Your task to perform on an android device: Add "logitech g pro" to the cart on bestbuy Image 0: 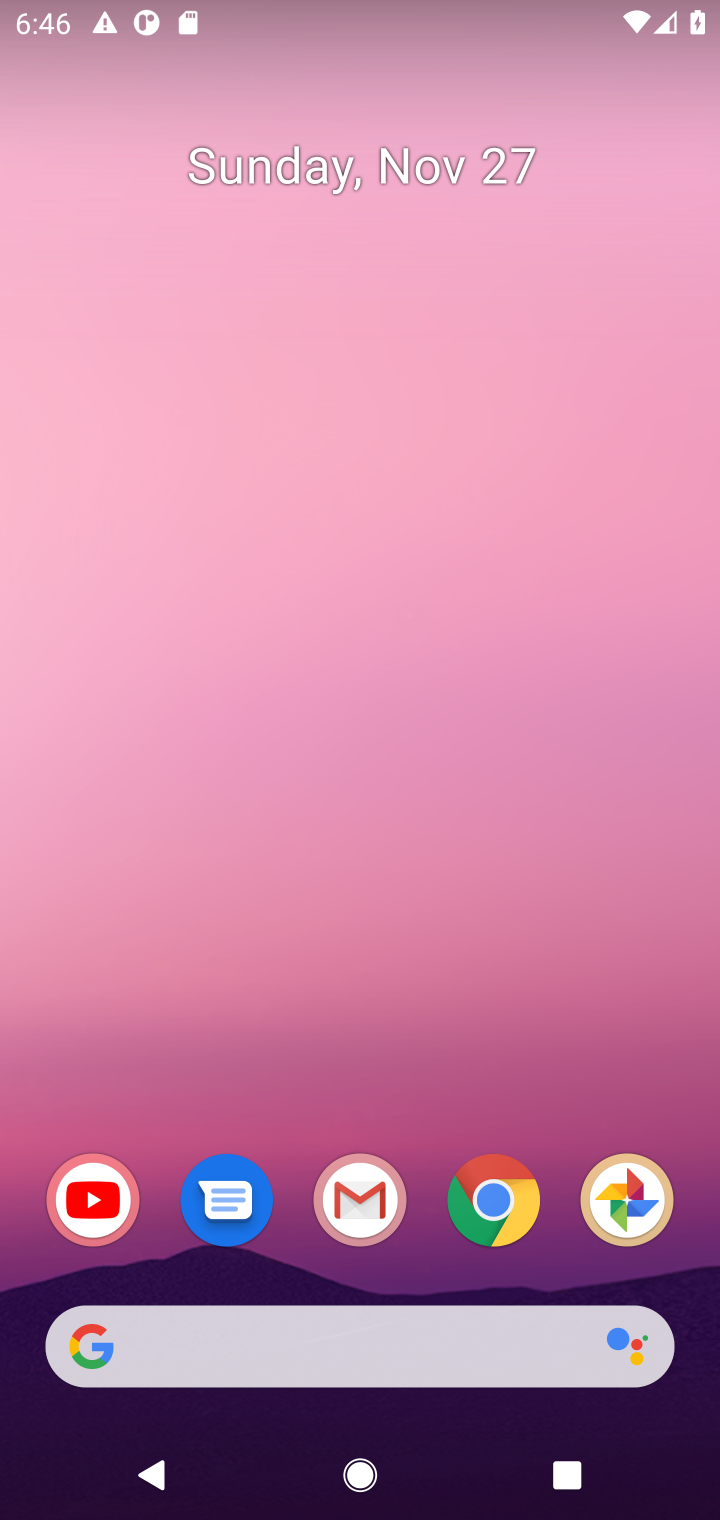
Step 0: click (512, 1206)
Your task to perform on an android device: Add "logitech g pro" to the cart on bestbuy Image 1: 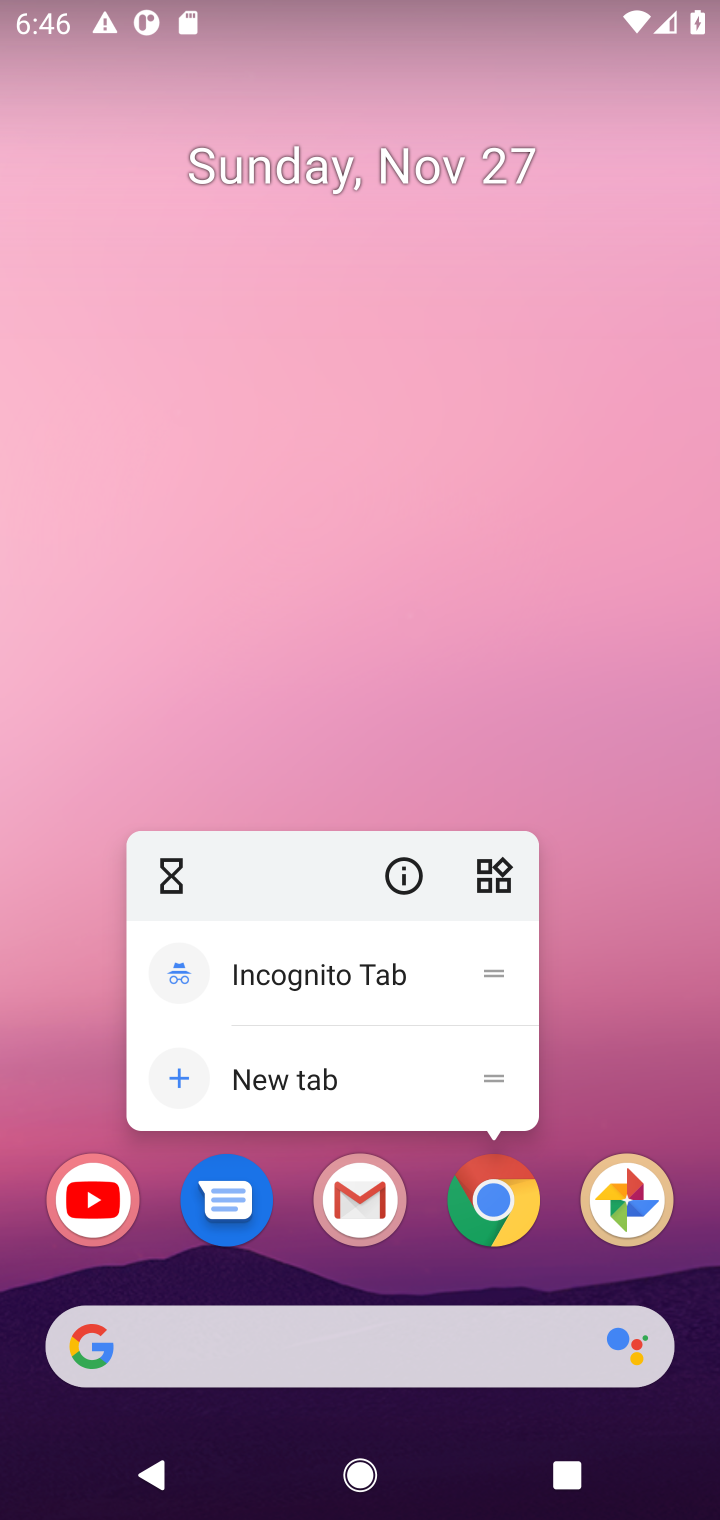
Step 1: click (510, 1204)
Your task to perform on an android device: Add "logitech g pro" to the cart on bestbuy Image 2: 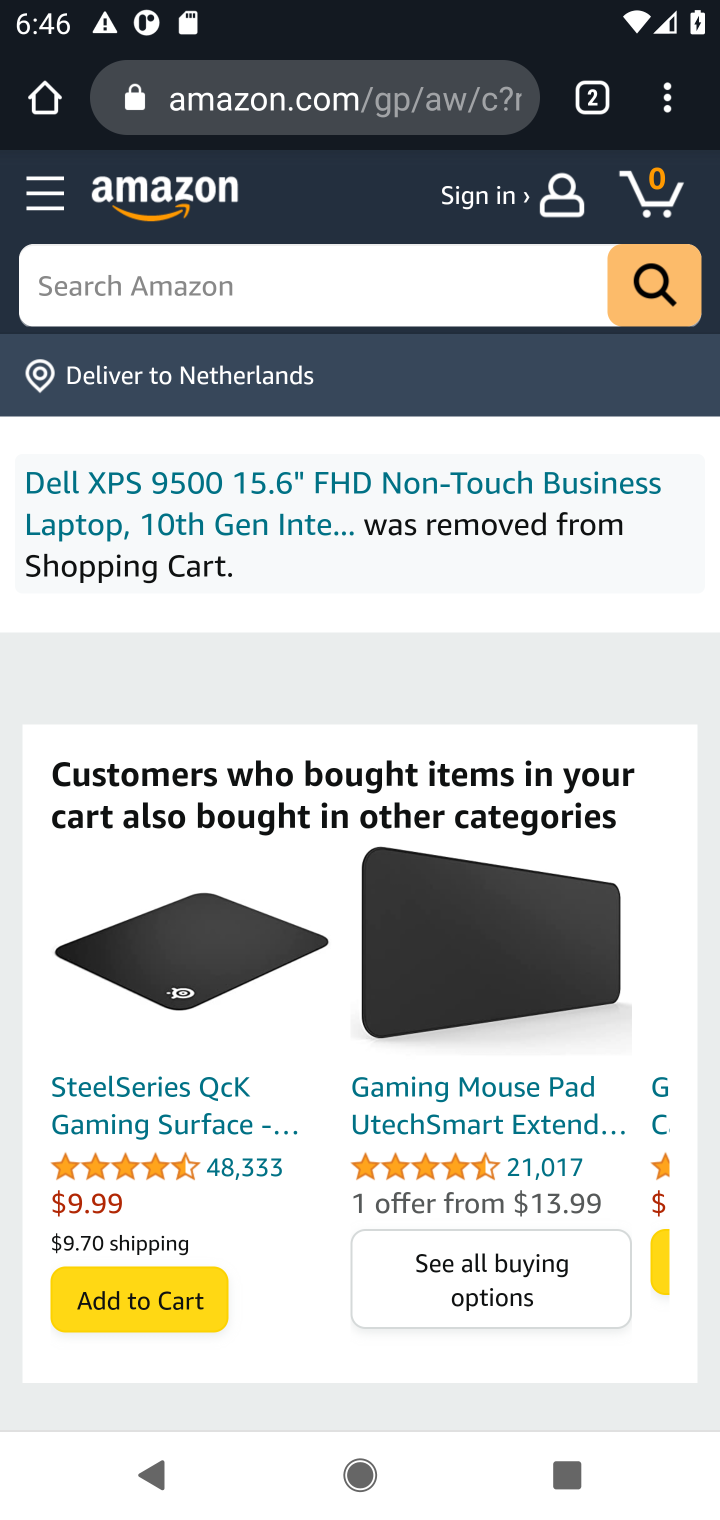
Step 2: click (292, 109)
Your task to perform on an android device: Add "logitech g pro" to the cart on bestbuy Image 3: 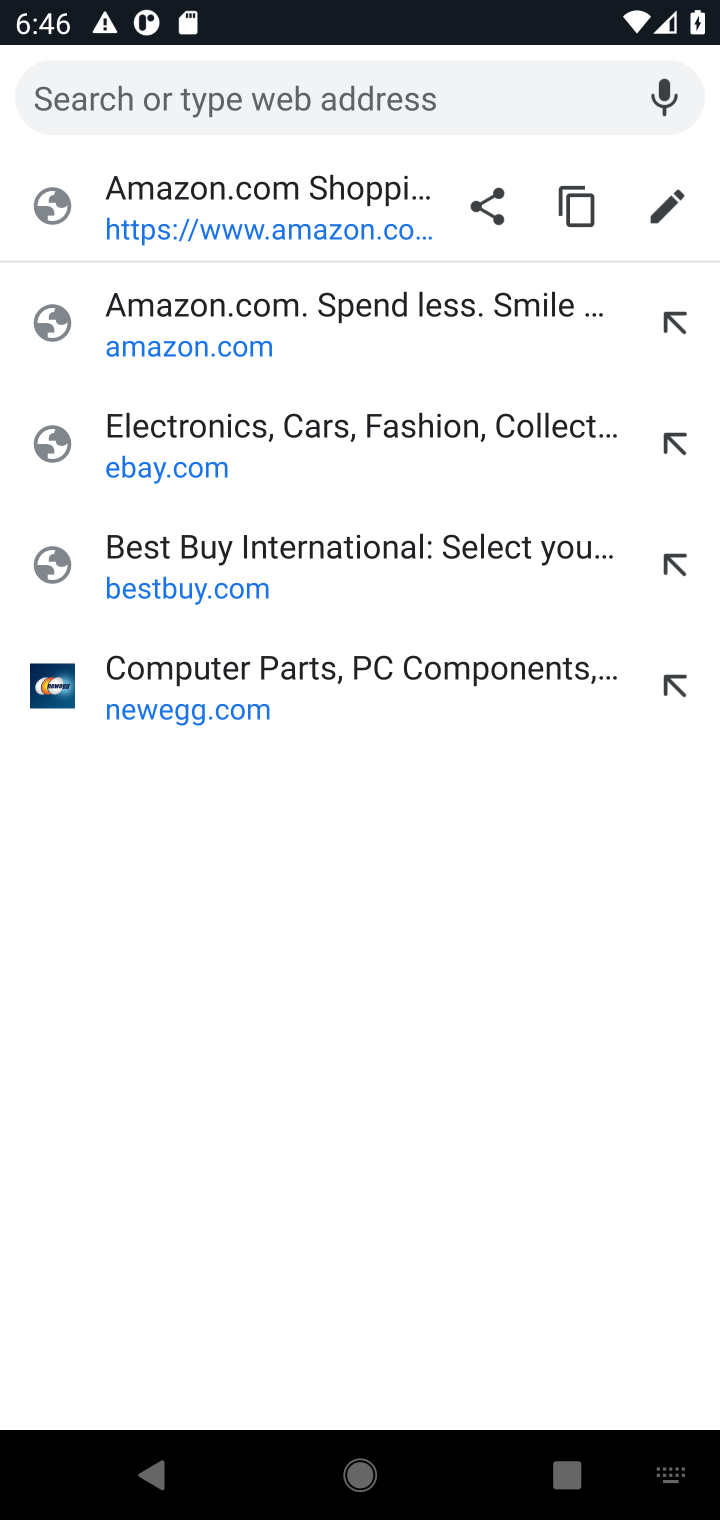
Step 3: type "bestbuy.com"
Your task to perform on an android device: Add "logitech g pro" to the cart on bestbuy Image 4: 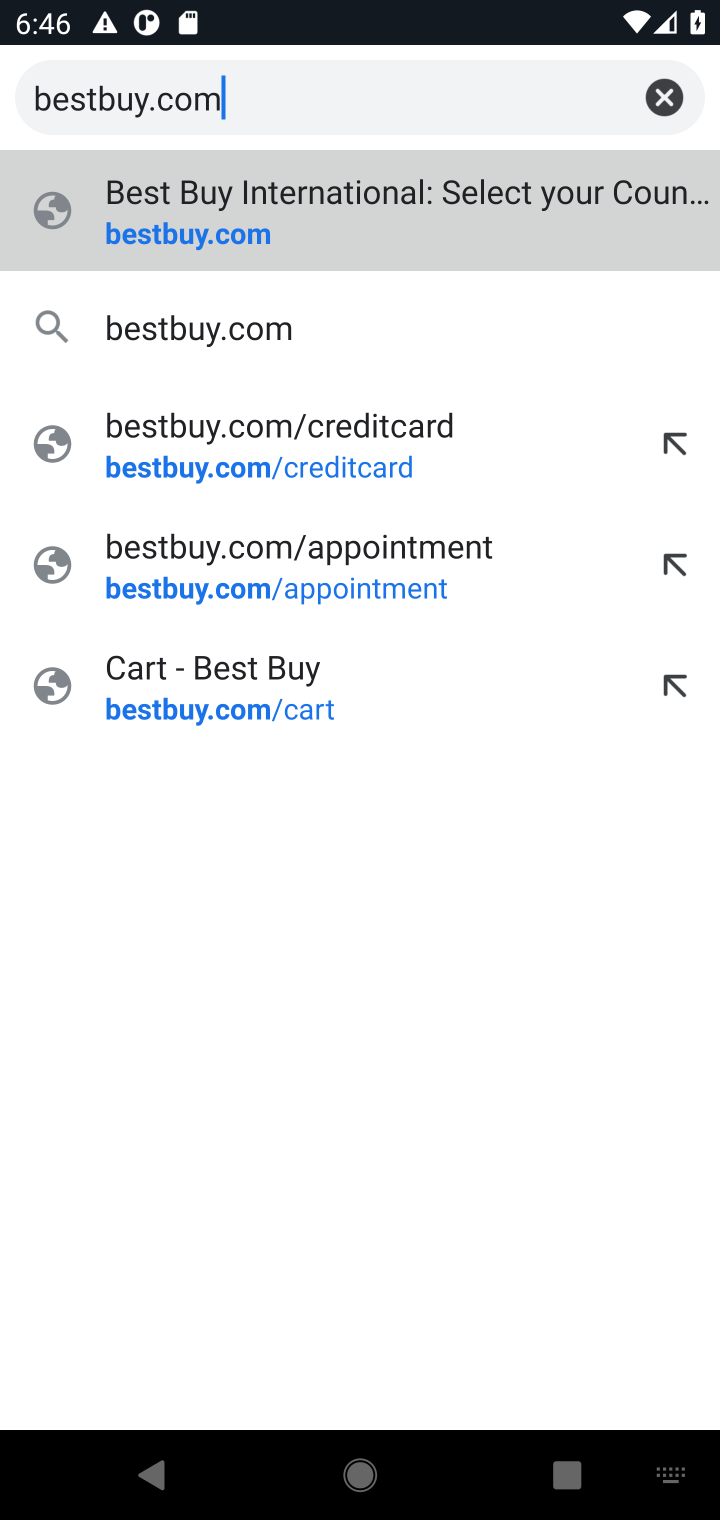
Step 4: click (148, 241)
Your task to perform on an android device: Add "logitech g pro" to the cart on bestbuy Image 5: 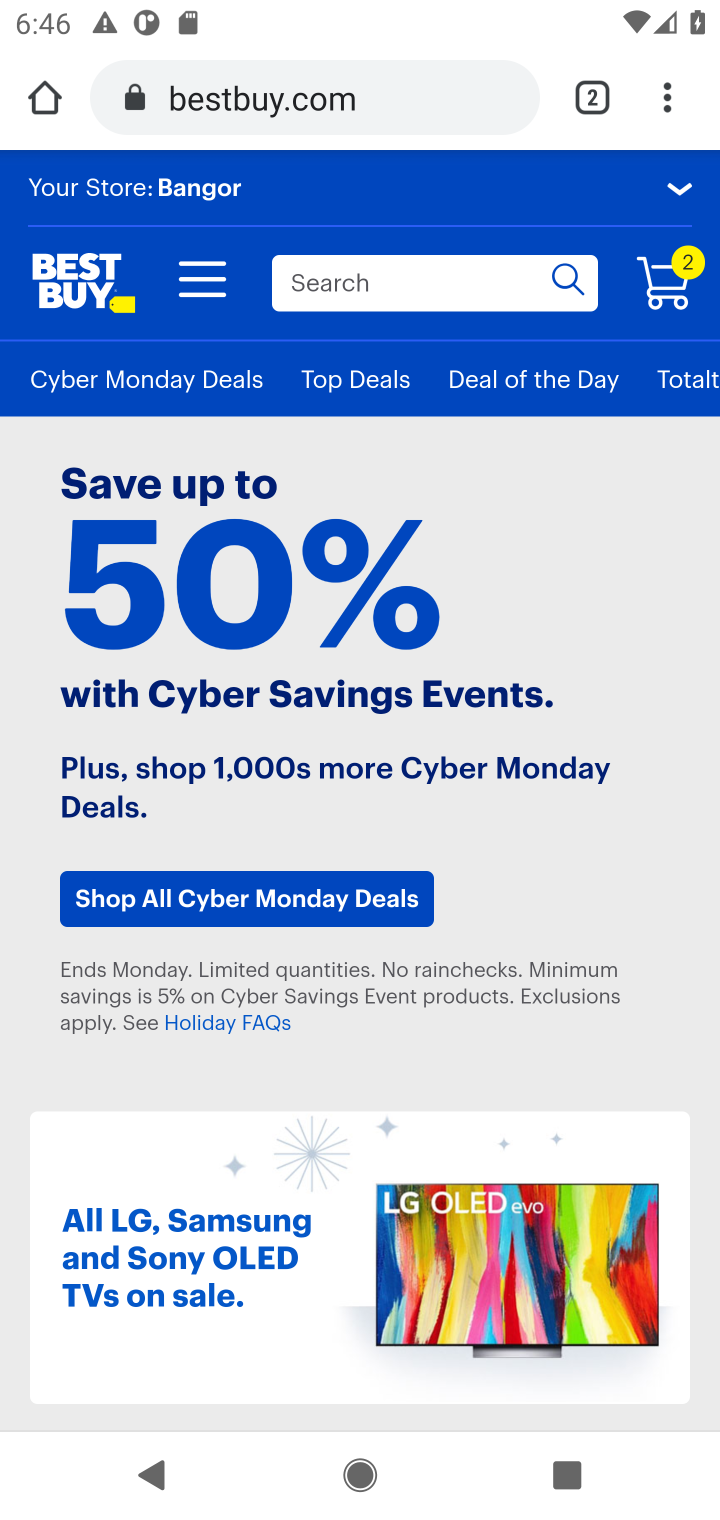
Step 5: click (334, 298)
Your task to perform on an android device: Add "logitech g pro" to the cart on bestbuy Image 6: 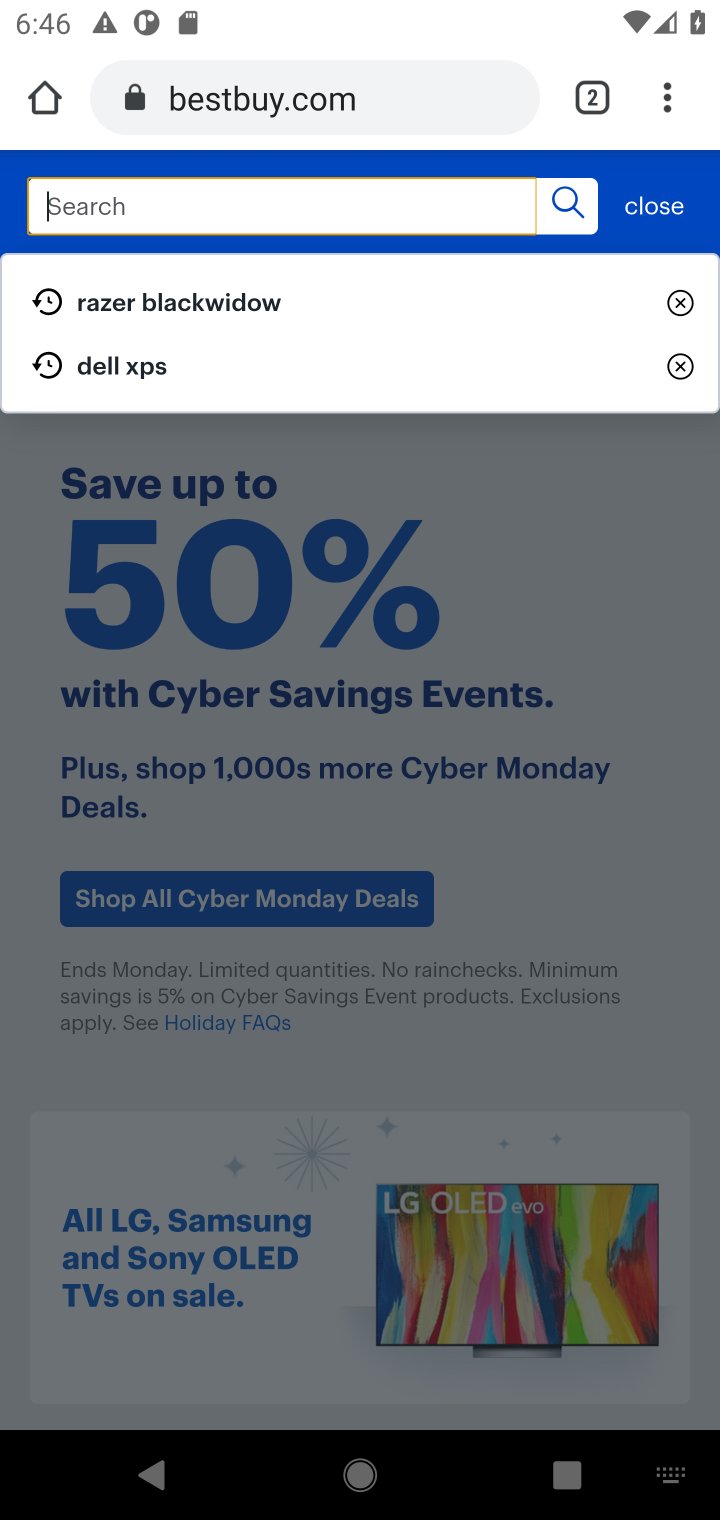
Step 6: type "logitech g pro"
Your task to perform on an android device: Add "logitech g pro" to the cart on bestbuy Image 7: 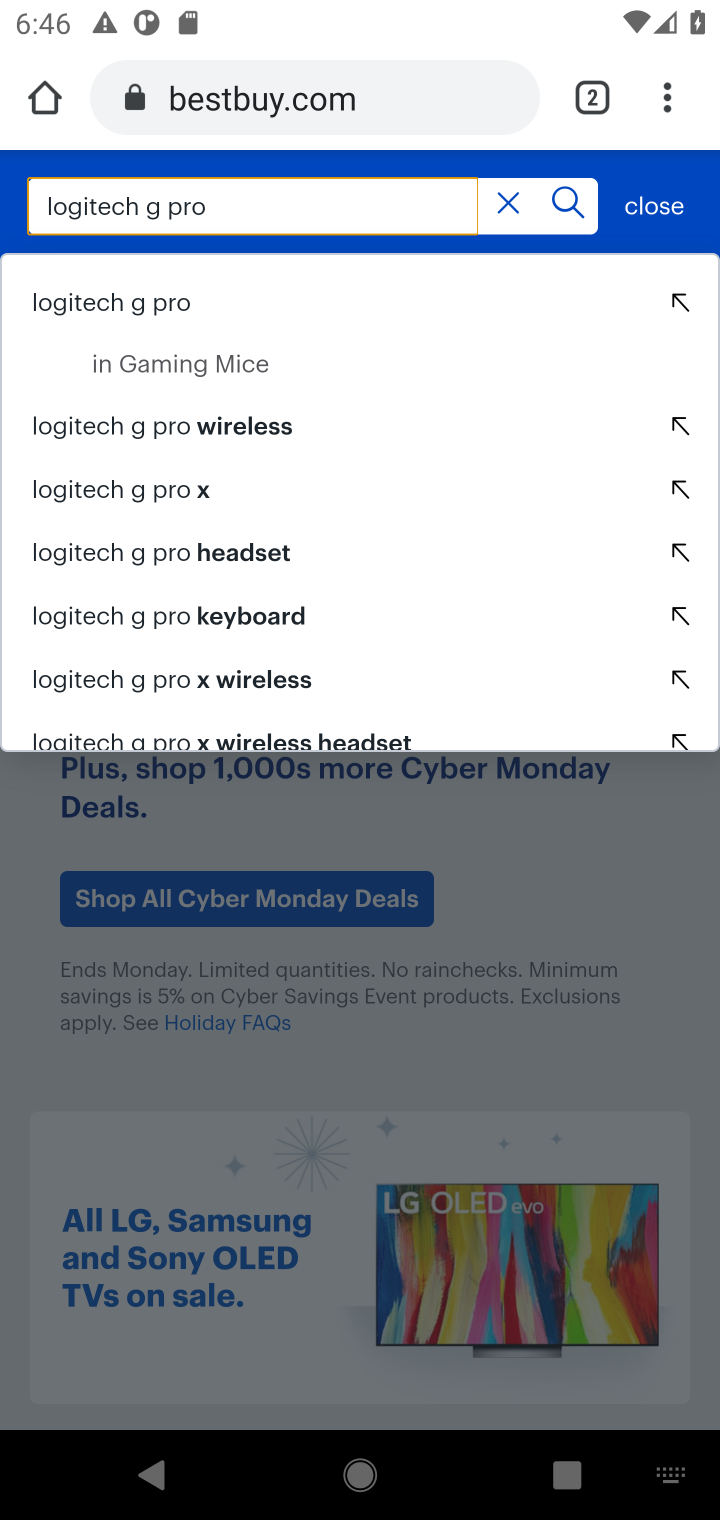
Step 7: click (123, 319)
Your task to perform on an android device: Add "logitech g pro" to the cart on bestbuy Image 8: 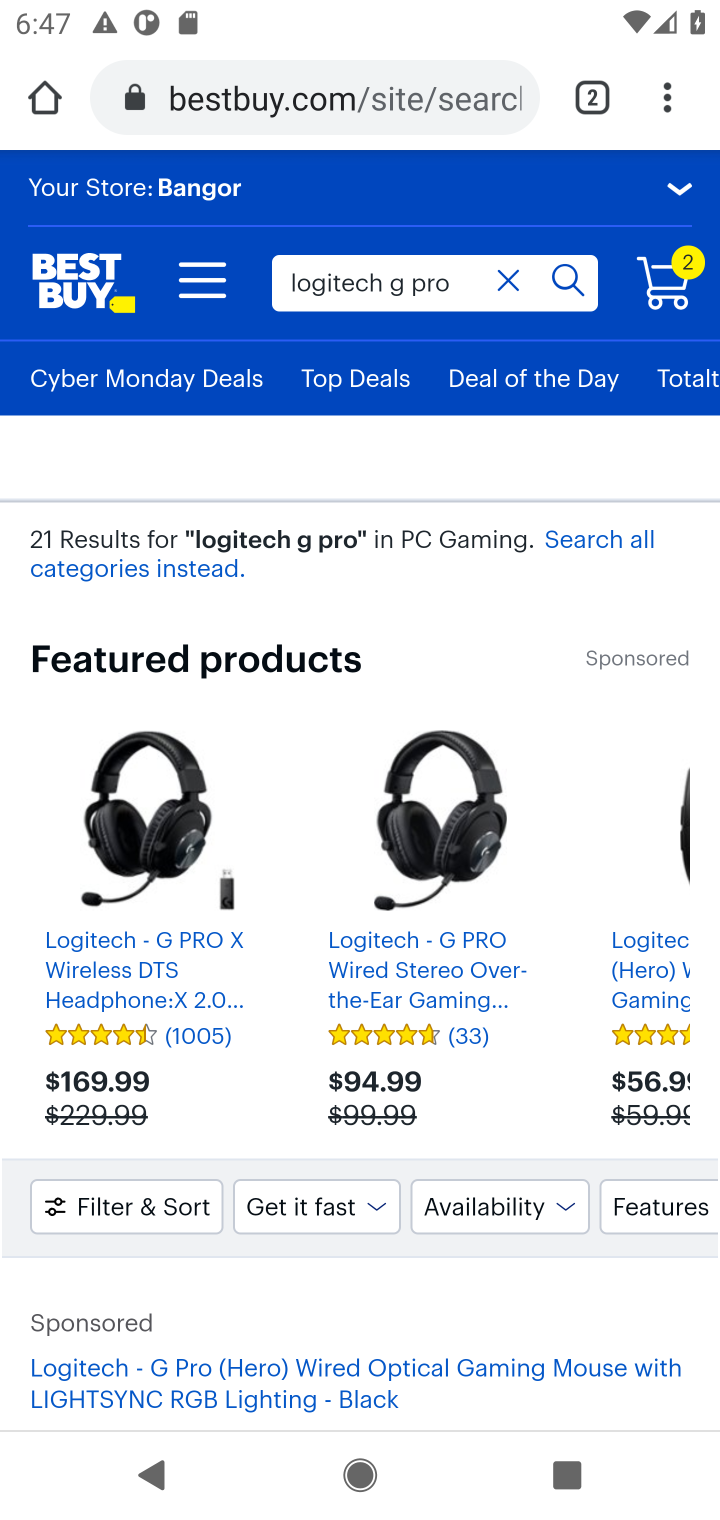
Step 8: drag from (273, 1003) to (208, 326)
Your task to perform on an android device: Add "logitech g pro" to the cart on bestbuy Image 9: 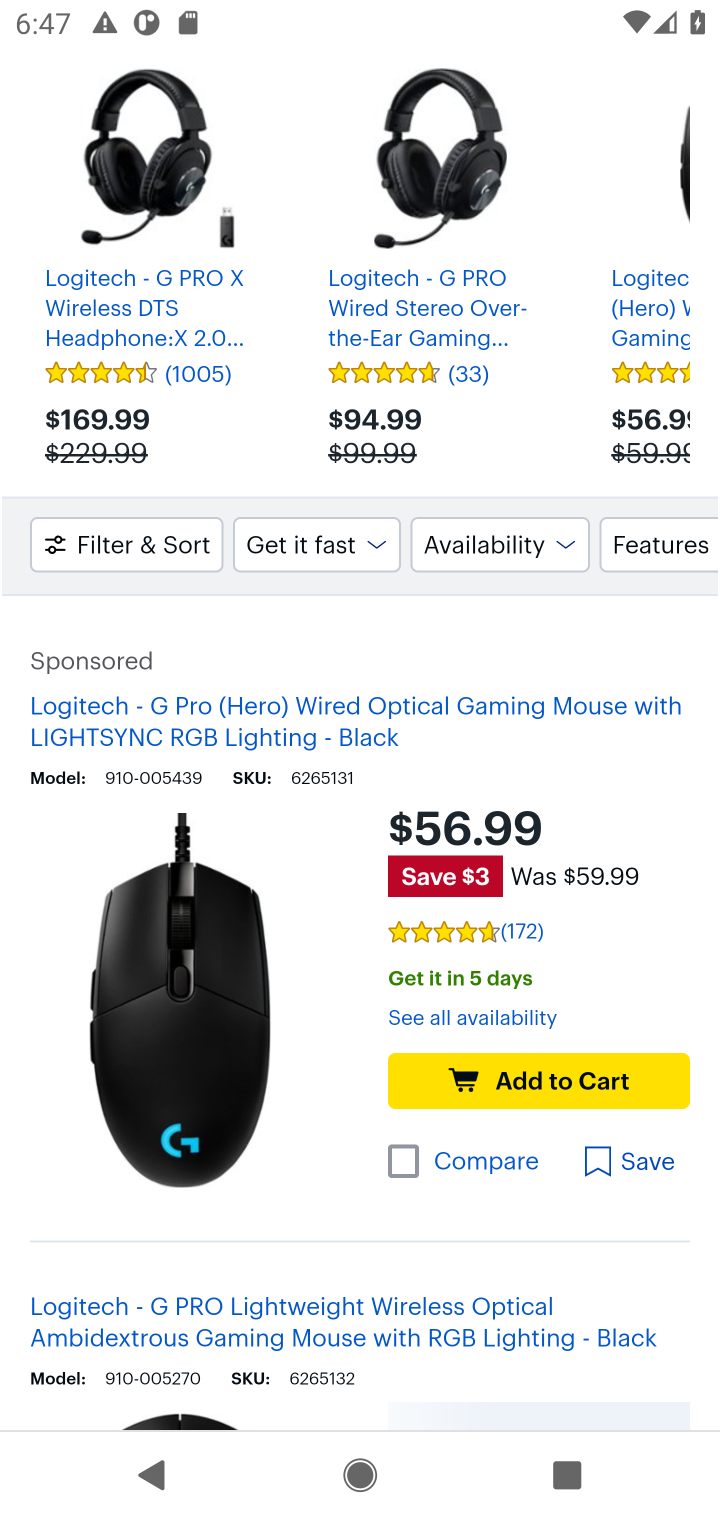
Step 9: click (532, 1083)
Your task to perform on an android device: Add "logitech g pro" to the cart on bestbuy Image 10: 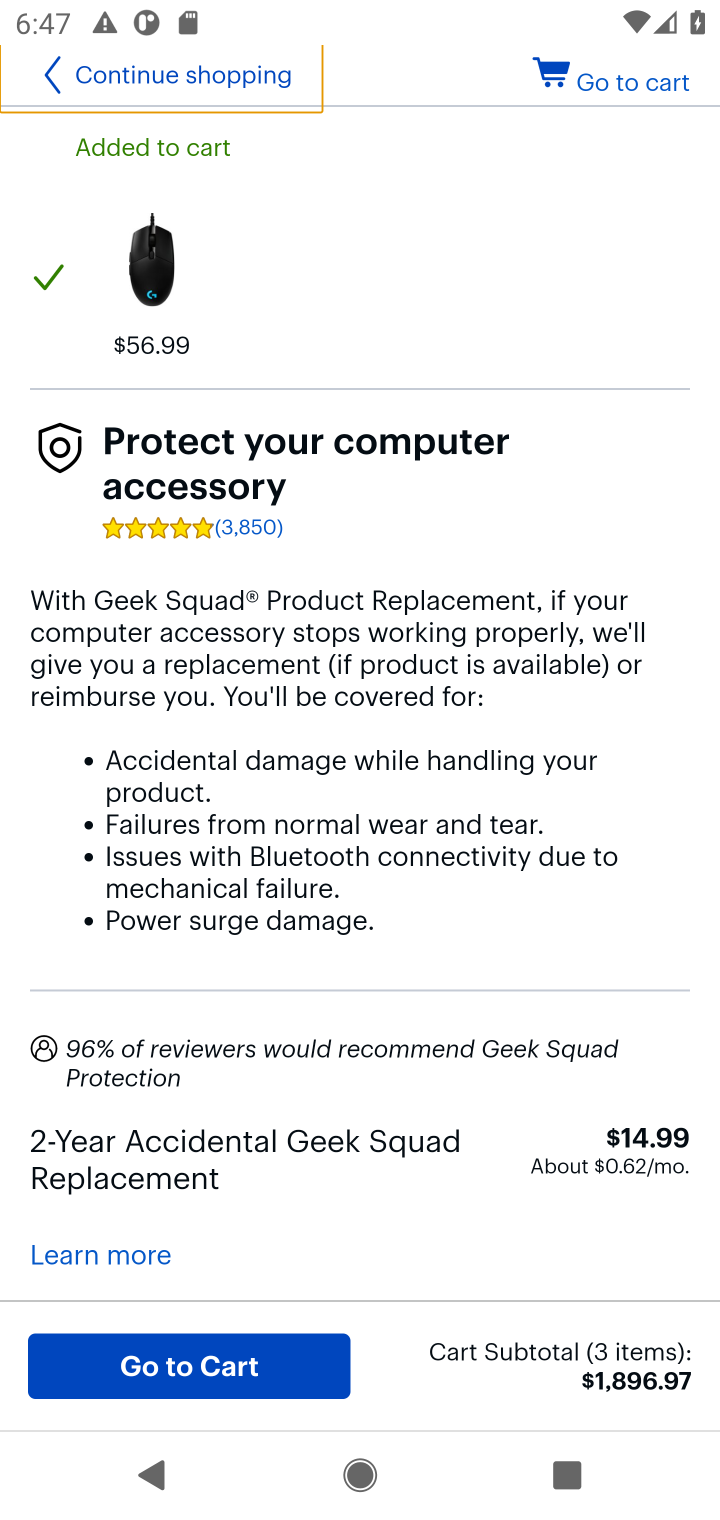
Step 10: task complete